Your task to perform on an android device: Open wifi settings Image 0: 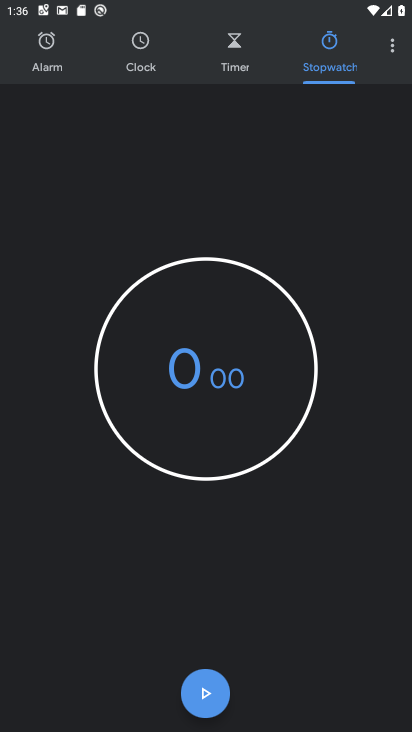
Step 0: press home button
Your task to perform on an android device: Open wifi settings Image 1: 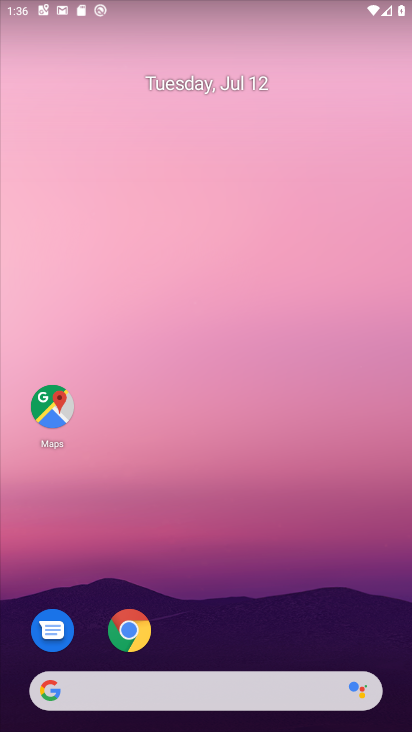
Step 1: drag from (249, 476) to (265, 23)
Your task to perform on an android device: Open wifi settings Image 2: 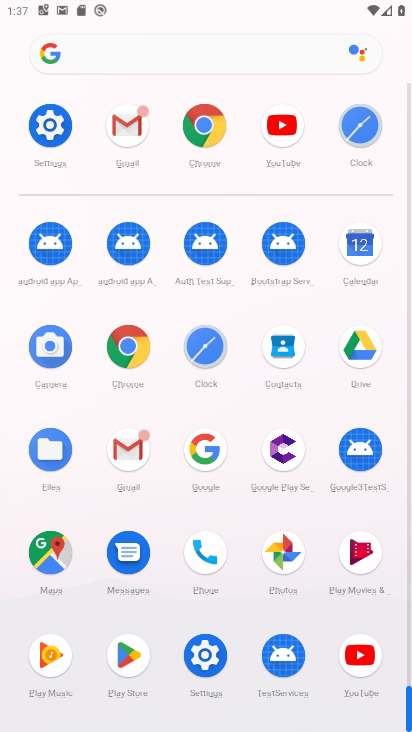
Step 2: click (49, 123)
Your task to perform on an android device: Open wifi settings Image 3: 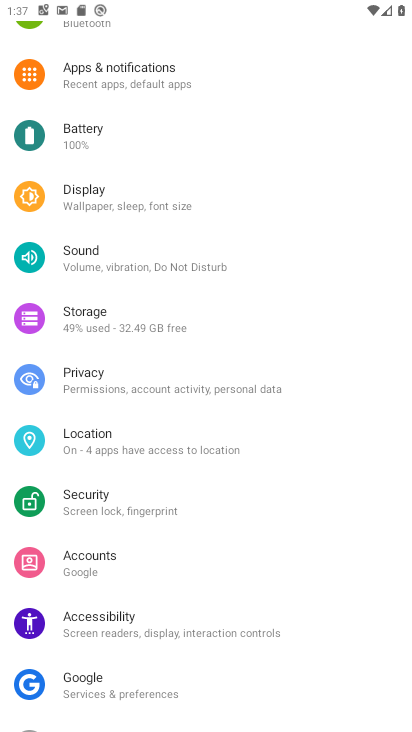
Step 3: drag from (111, 220) to (84, 553)
Your task to perform on an android device: Open wifi settings Image 4: 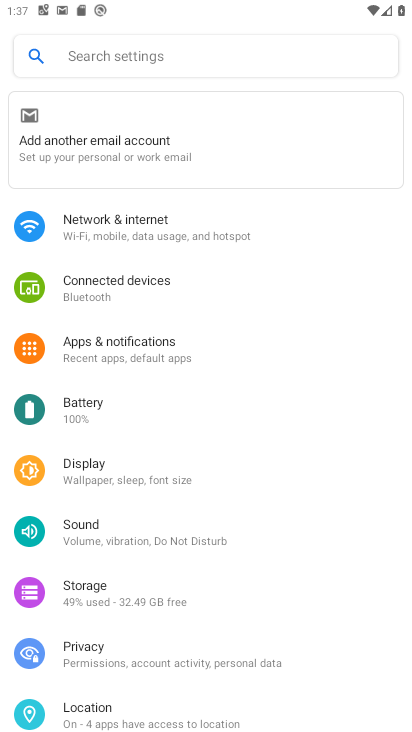
Step 4: drag from (183, 278) to (155, 402)
Your task to perform on an android device: Open wifi settings Image 5: 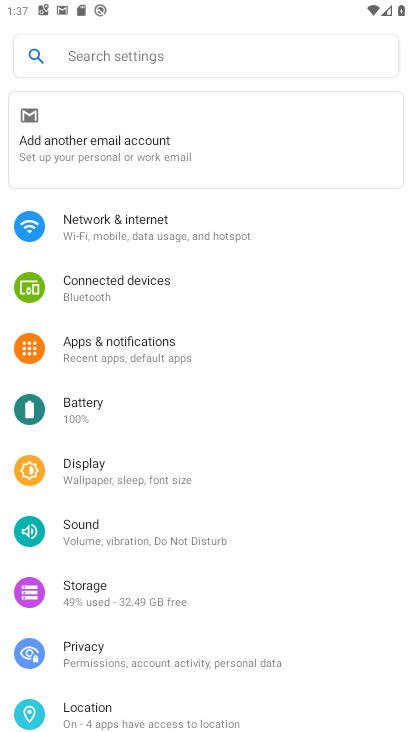
Step 5: click (148, 242)
Your task to perform on an android device: Open wifi settings Image 6: 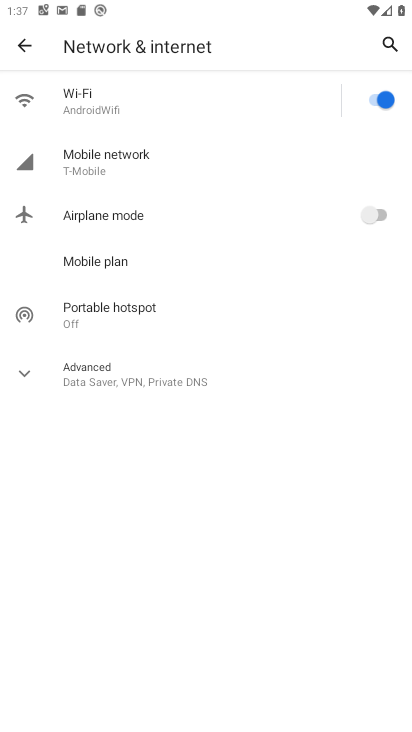
Step 6: click (123, 102)
Your task to perform on an android device: Open wifi settings Image 7: 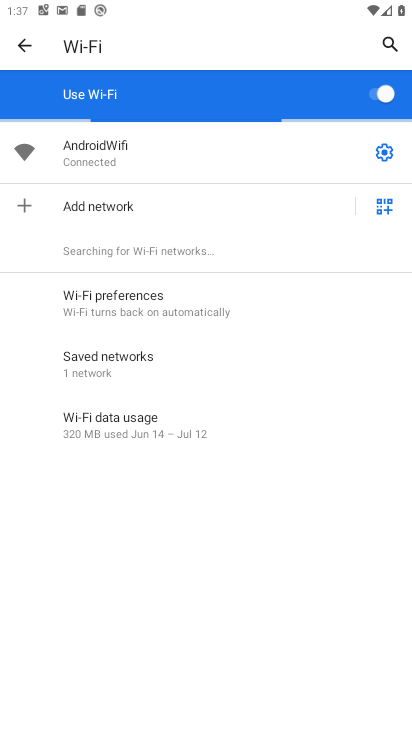
Step 7: task complete